Your task to perform on an android device: Open the calendar app, open the side menu, and click the "Day" option Image 0: 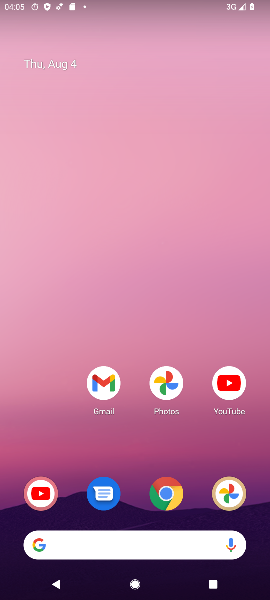
Step 0: drag from (21, 563) to (145, 165)
Your task to perform on an android device: Open the calendar app, open the side menu, and click the "Day" option Image 1: 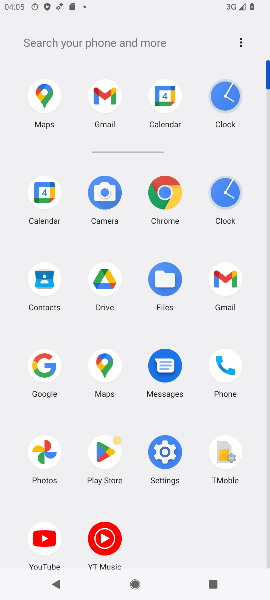
Step 1: click (45, 200)
Your task to perform on an android device: Open the calendar app, open the side menu, and click the "Day" option Image 2: 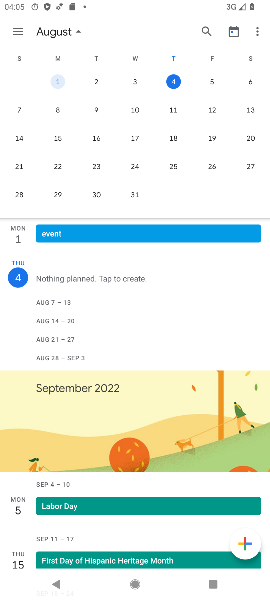
Step 2: click (18, 32)
Your task to perform on an android device: Open the calendar app, open the side menu, and click the "Day" option Image 3: 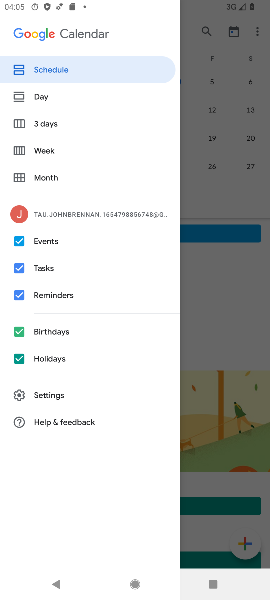
Step 3: click (43, 96)
Your task to perform on an android device: Open the calendar app, open the side menu, and click the "Day" option Image 4: 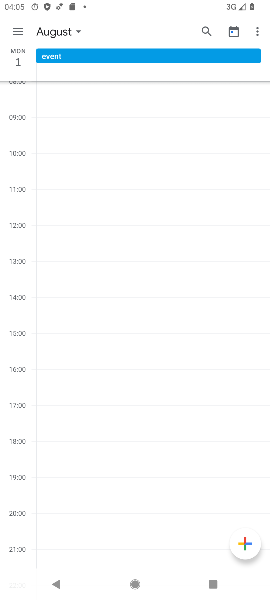
Step 4: task complete